Your task to perform on an android device: change notification settings in the gmail app Image 0: 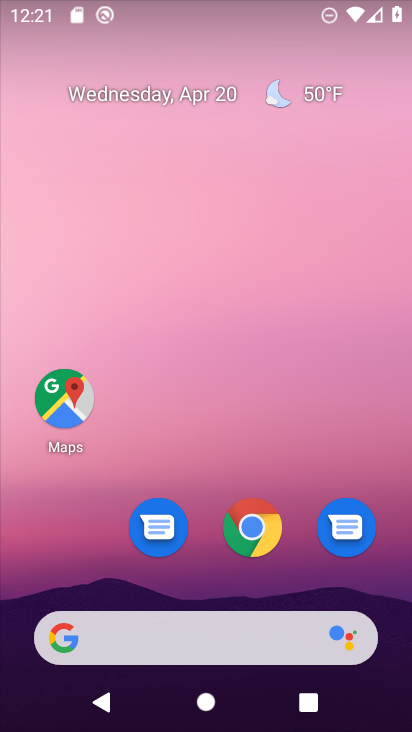
Step 0: drag from (391, 590) to (396, 12)
Your task to perform on an android device: change notification settings in the gmail app Image 1: 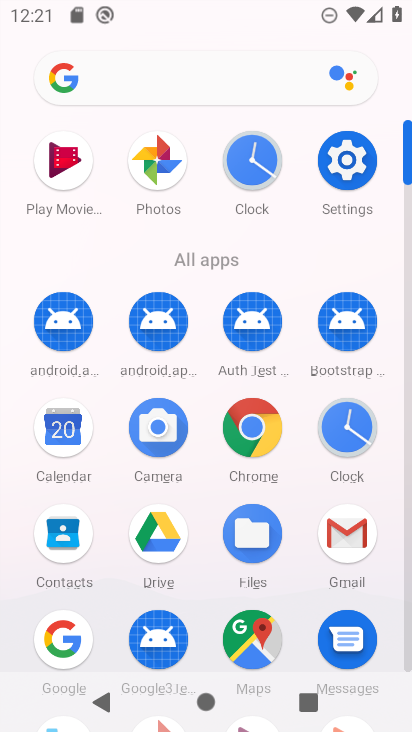
Step 1: click (353, 531)
Your task to perform on an android device: change notification settings in the gmail app Image 2: 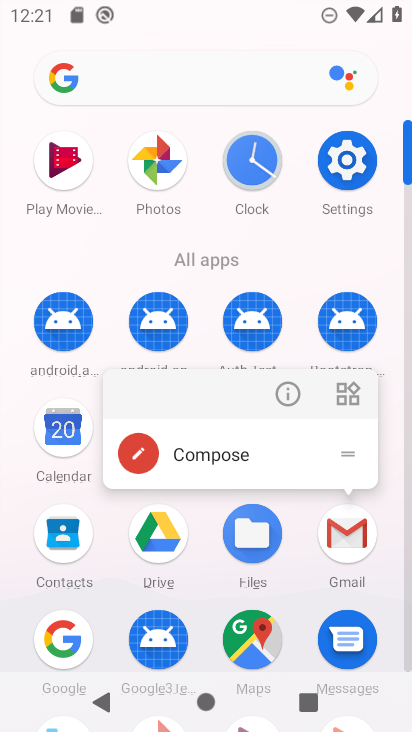
Step 2: click (359, 536)
Your task to perform on an android device: change notification settings in the gmail app Image 3: 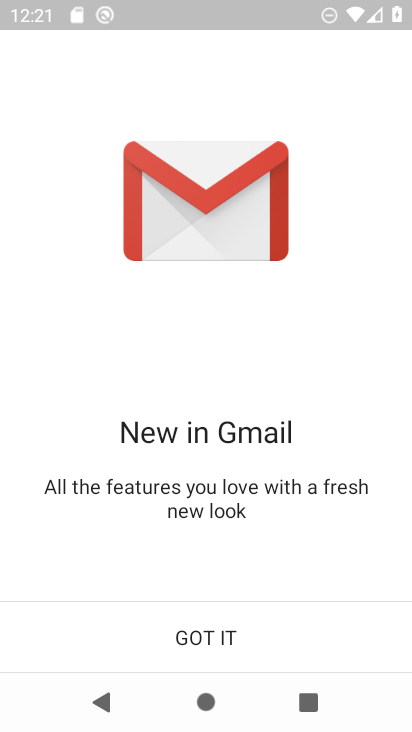
Step 3: click (206, 642)
Your task to perform on an android device: change notification settings in the gmail app Image 4: 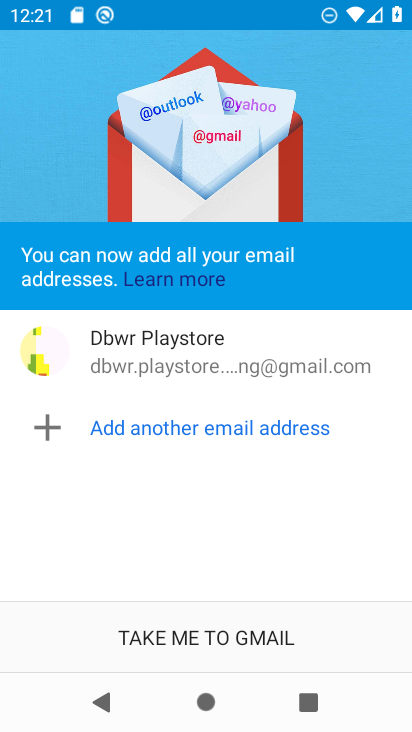
Step 4: click (206, 642)
Your task to perform on an android device: change notification settings in the gmail app Image 5: 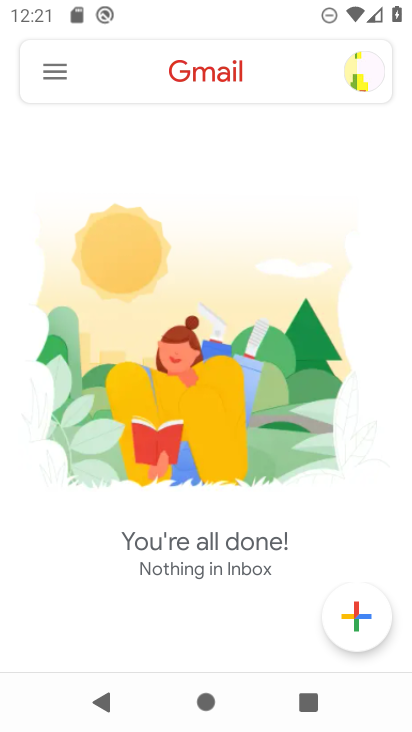
Step 5: click (67, 76)
Your task to perform on an android device: change notification settings in the gmail app Image 6: 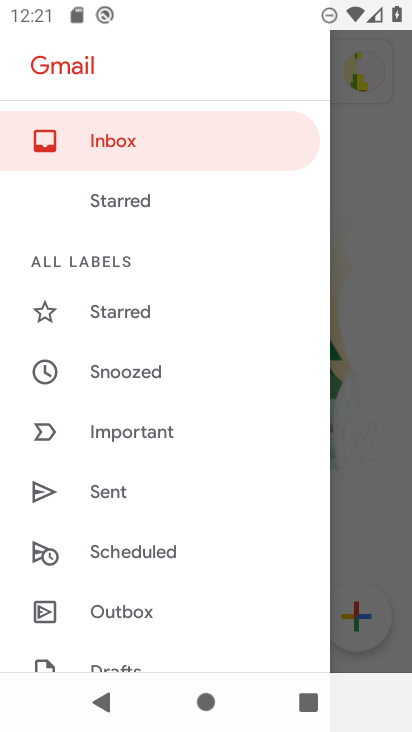
Step 6: drag from (222, 506) to (189, 14)
Your task to perform on an android device: change notification settings in the gmail app Image 7: 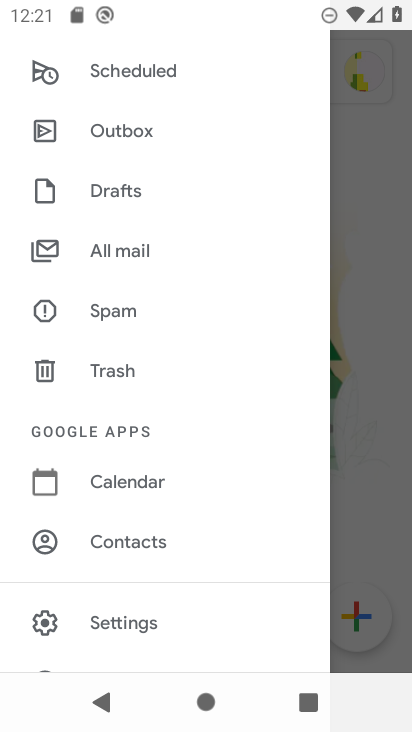
Step 7: click (143, 618)
Your task to perform on an android device: change notification settings in the gmail app Image 8: 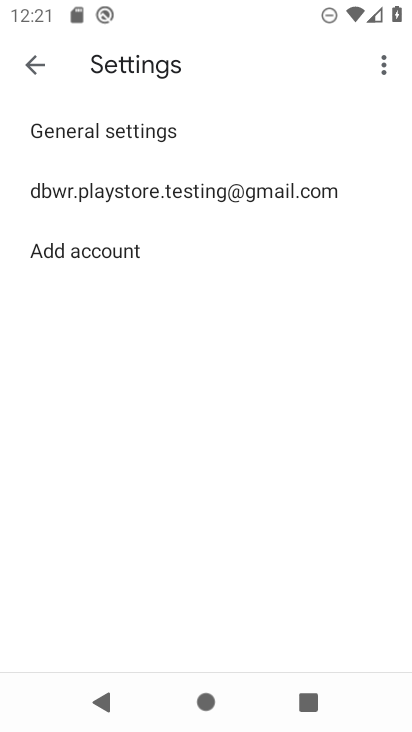
Step 8: click (81, 141)
Your task to perform on an android device: change notification settings in the gmail app Image 9: 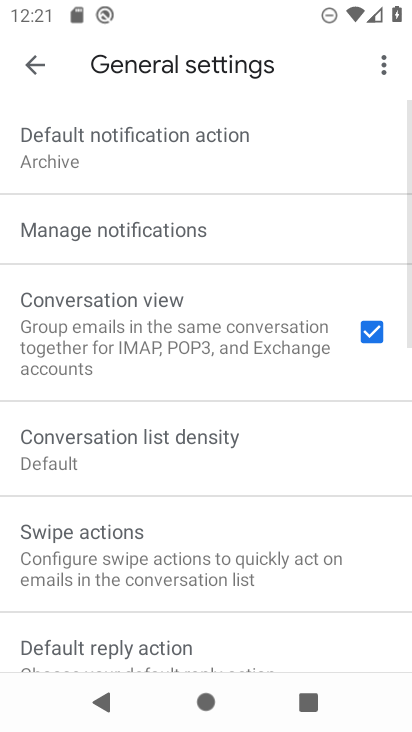
Step 9: click (77, 236)
Your task to perform on an android device: change notification settings in the gmail app Image 10: 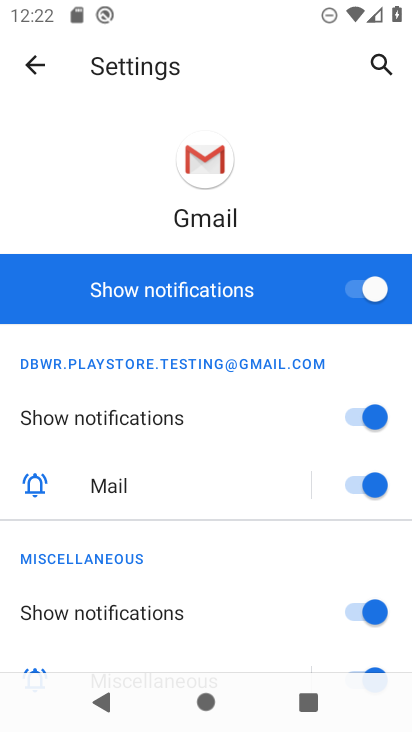
Step 10: click (364, 294)
Your task to perform on an android device: change notification settings in the gmail app Image 11: 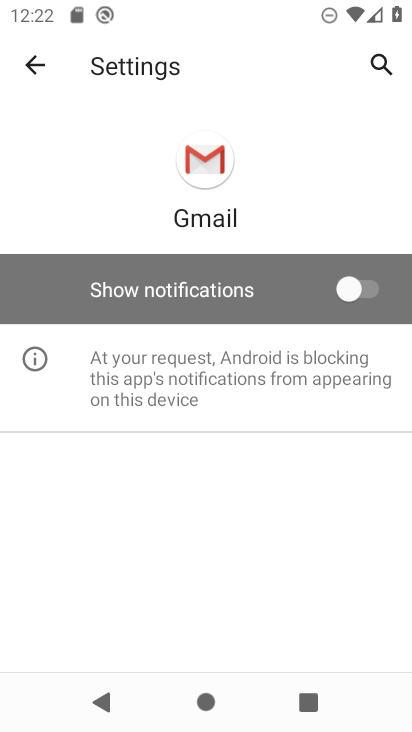
Step 11: task complete